Your task to perform on an android device: Open the web browser Image 0: 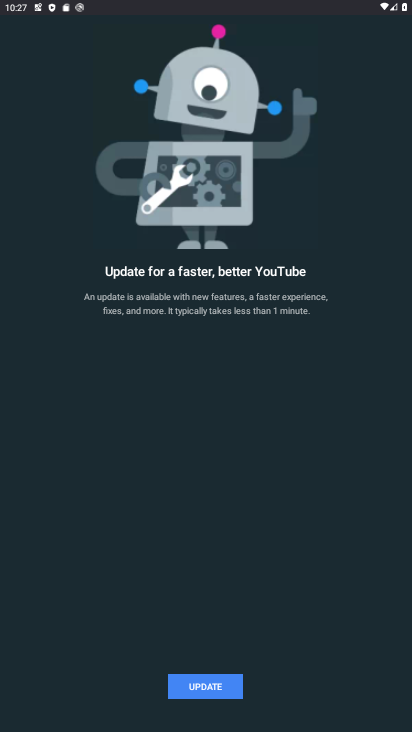
Step 0: press back button
Your task to perform on an android device: Open the web browser Image 1: 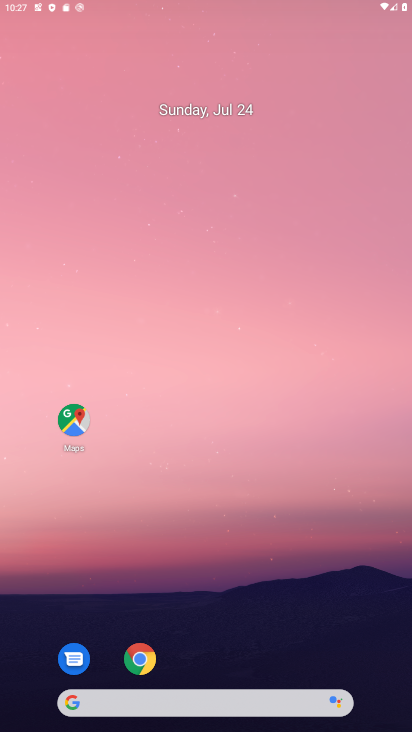
Step 1: press home button
Your task to perform on an android device: Open the web browser Image 2: 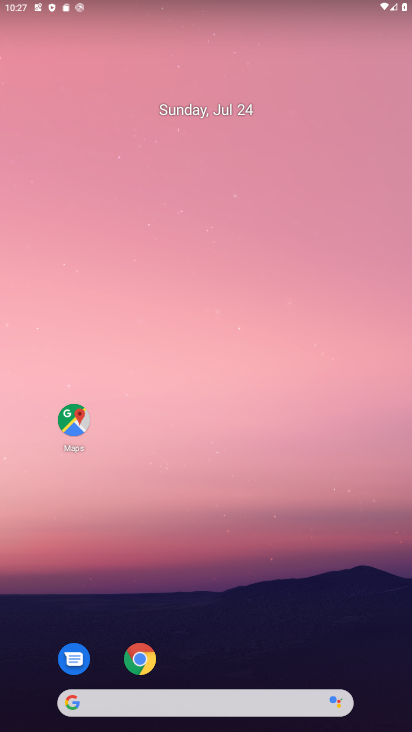
Step 2: click (134, 658)
Your task to perform on an android device: Open the web browser Image 3: 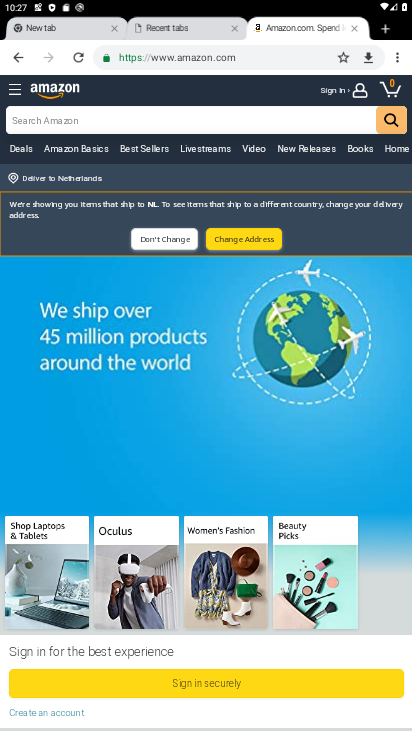
Step 3: task complete